Your task to perform on an android device: Show me the alarms in the clock app Image 0: 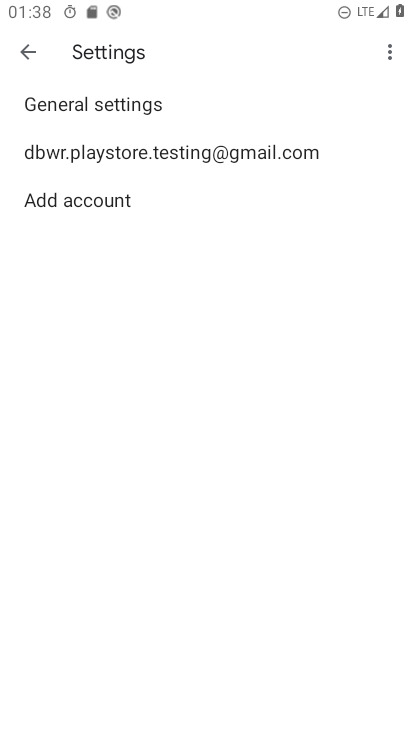
Step 0: press home button
Your task to perform on an android device: Show me the alarms in the clock app Image 1: 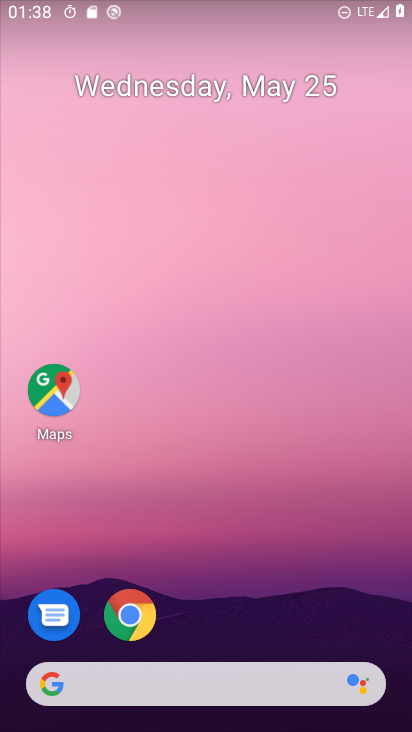
Step 1: drag from (283, 711) to (380, 1)
Your task to perform on an android device: Show me the alarms in the clock app Image 2: 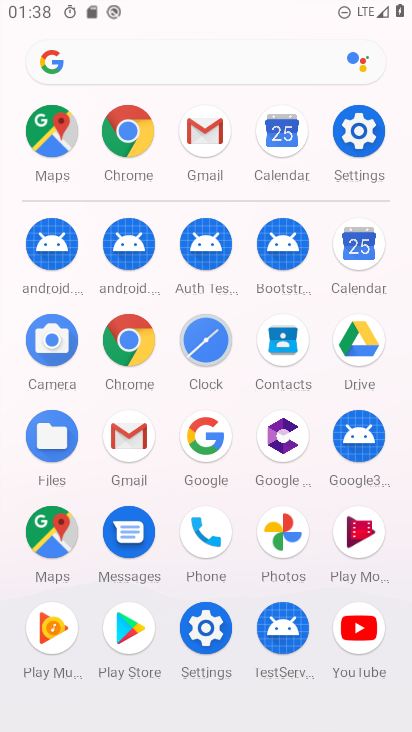
Step 2: click (203, 343)
Your task to perform on an android device: Show me the alarms in the clock app Image 3: 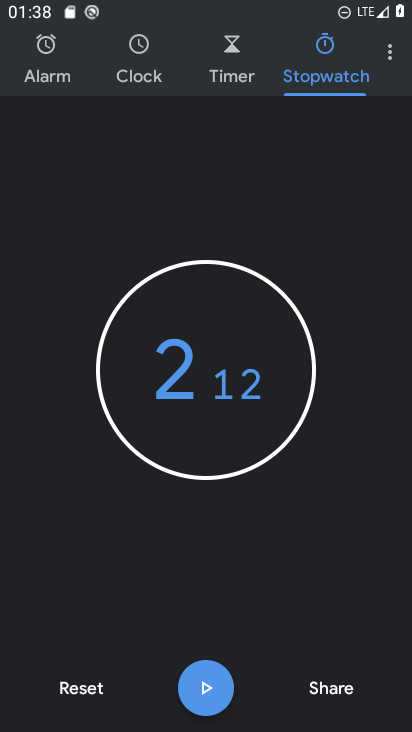
Step 3: click (378, 61)
Your task to perform on an android device: Show me the alarms in the clock app Image 4: 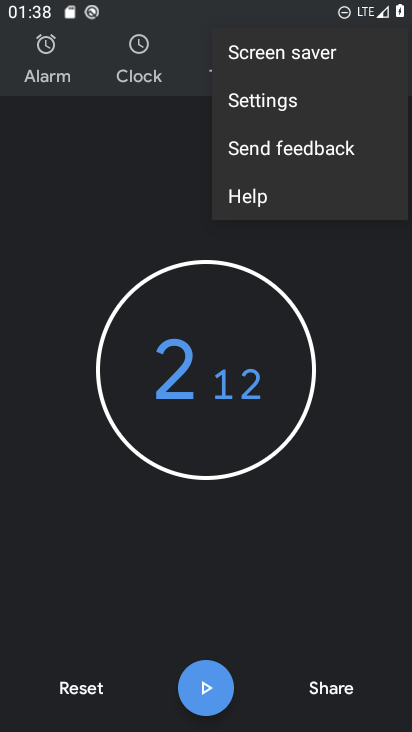
Step 4: click (45, 57)
Your task to perform on an android device: Show me the alarms in the clock app Image 5: 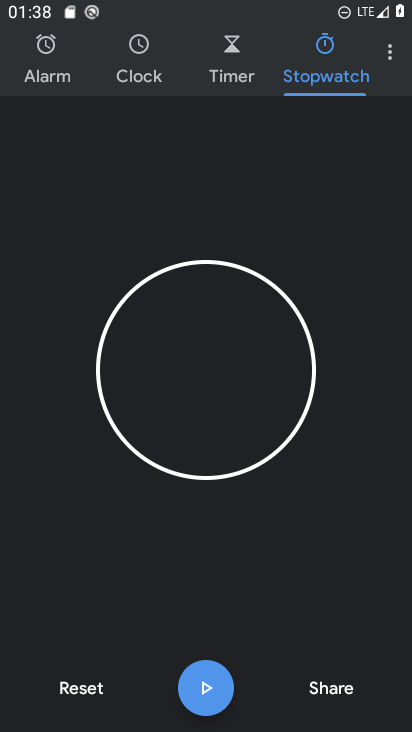
Step 5: click (46, 57)
Your task to perform on an android device: Show me the alarms in the clock app Image 6: 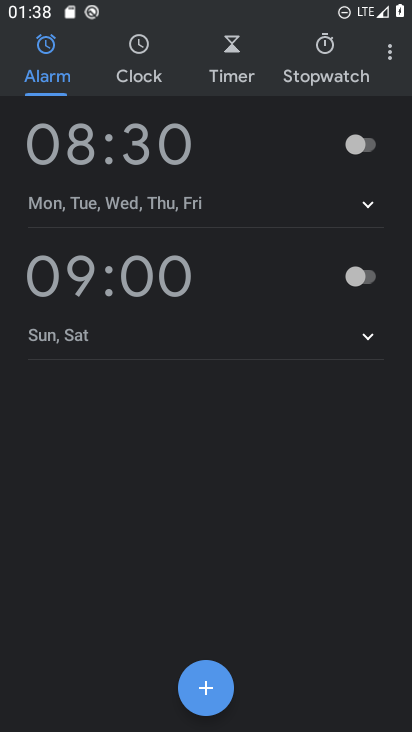
Step 6: task complete